Your task to perform on an android device: Open the calendar and show me this week's events? Image 0: 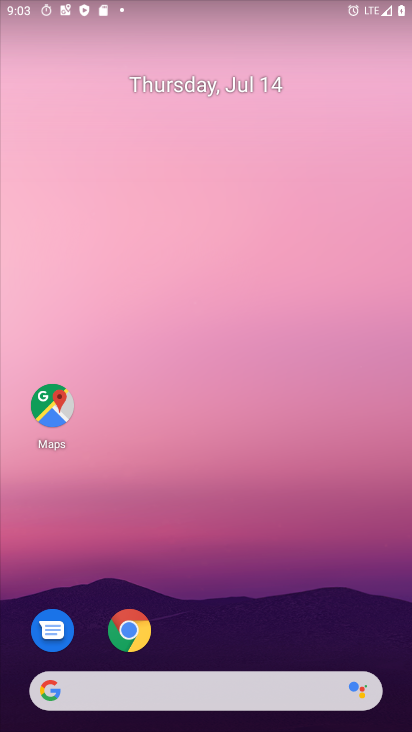
Step 0: drag from (180, 727) to (181, 2)
Your task to perform on an android device: Open the calendar and show me this week's events? Image 1: 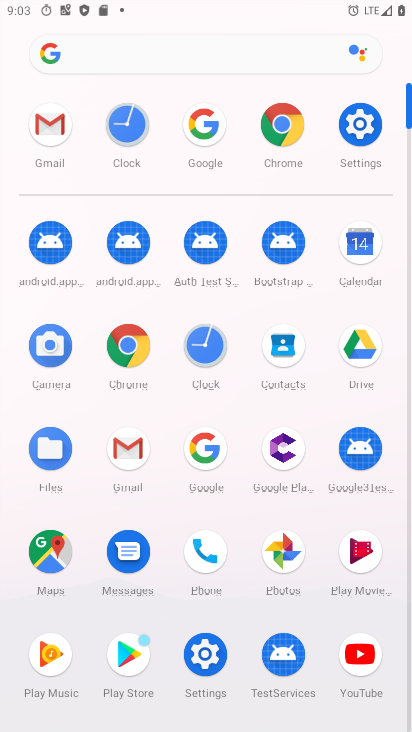
Step 1: click (364, 245)
Your task to perform on an android device: Open the calendar and show me this week's events? Image 2: 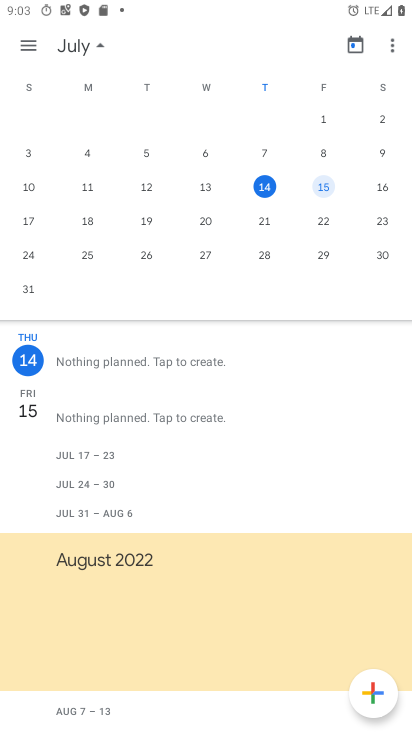
Step 2: click (31, 42)
Your task to perform on an android device: Open the calendar and show me this week's events? Image 3: 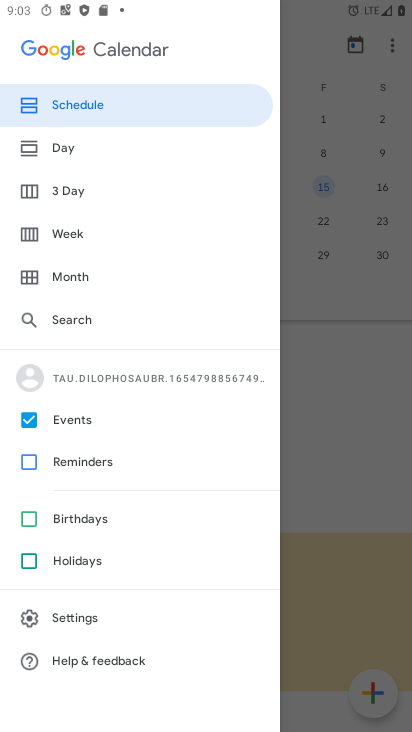
Step 3: click (70, 231)
Your task to perform on an android device: Open the calendar and show me this week's events? Image 4: 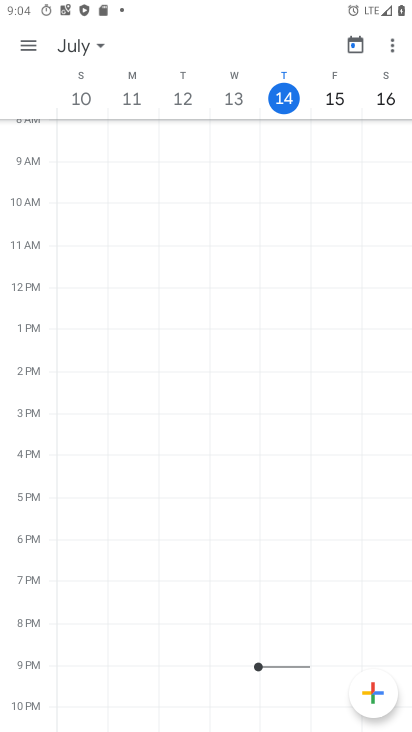
Step 4: task complete